Your task to perform on an android device: see creations saved in the google photos Image 0: 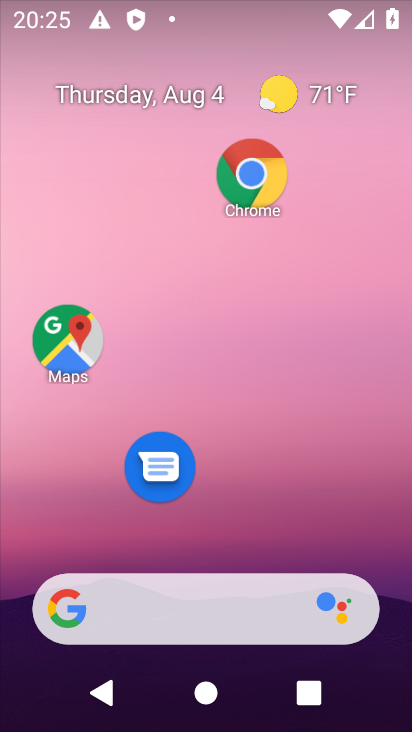
Step 0: press home button
Your task to perform on an android device: see creations saved in the google photos Image 1: 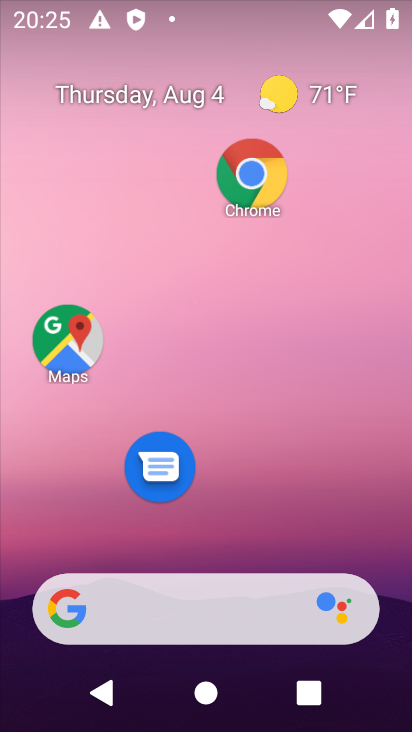
Step 1: drag from (313, 522) to (284, 30)
Your task to perform on an android device: see creations saved in the google photos Image 2: 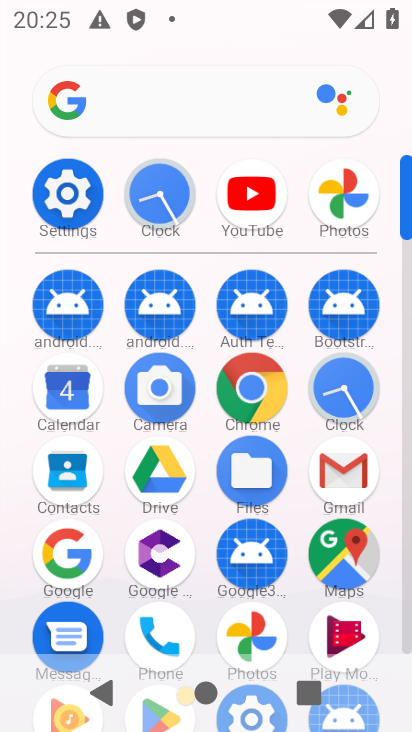
Step 2: click (333, 181)
Your task to perform on an android device: see creations saved in the google photos Image 3: 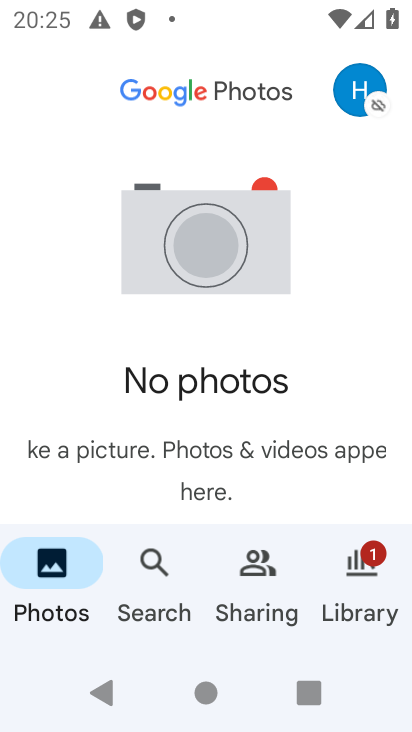
Step 3: click (149, 562)
Your task to perform on an android device: see creations saved in the google photos Image 4: 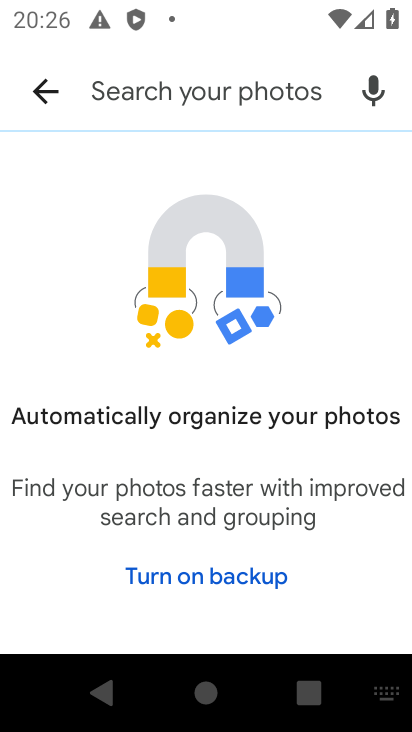
Step 4: click (120, 84)
Your task to perform on an android device: see creations saved in the google photos Image 5: 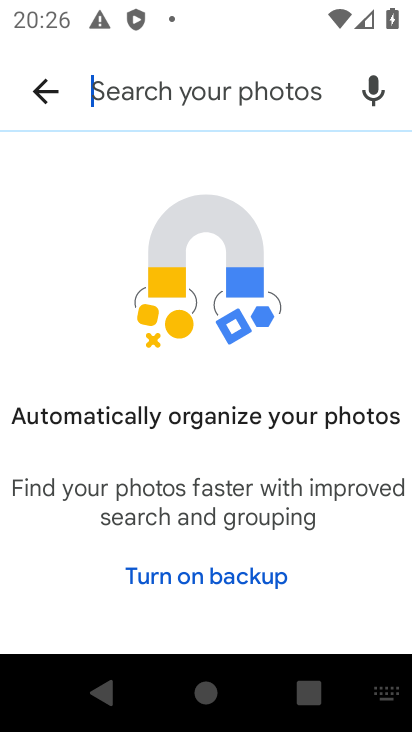
Step 5: click (191, 568)
Your task to perform on an android device: see creations saved in the google photos Image 6: 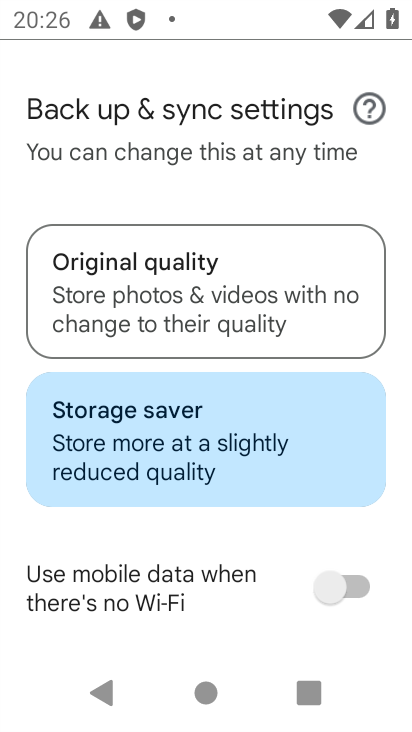
Step 6: drag from (124, 546) to (96, 185)
Your task to perform on an android device: see creations saved in the google photos Image 7: 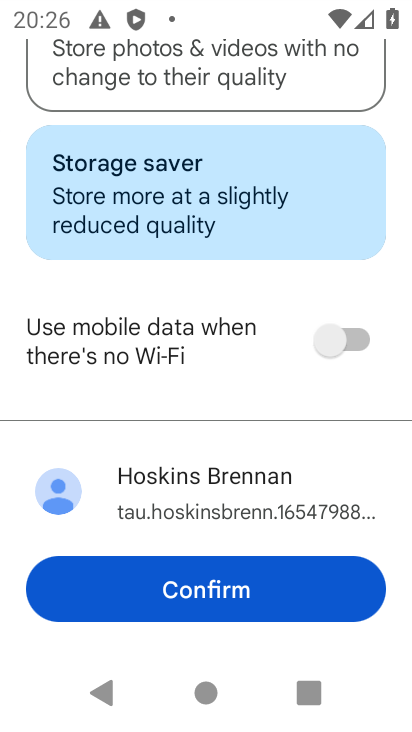
Step 7: drag from (125, 451) to (119, 302)
Your task to perform on an android device: see creations saved in the google photos Image 8: 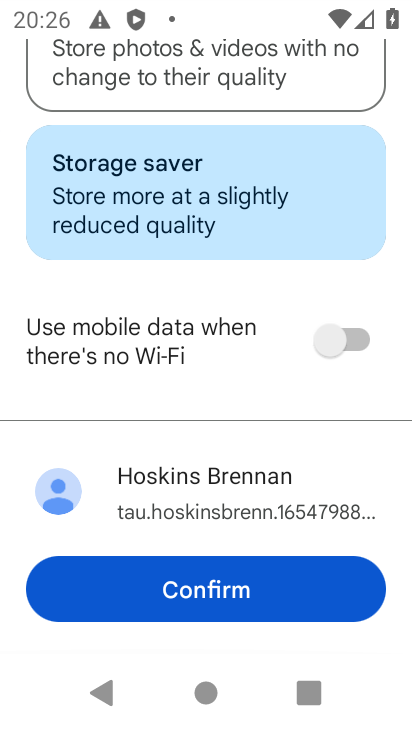
Step 8: click (145, 598)
Your task to perform on an android device: see creations saved in the google photos Image 9: 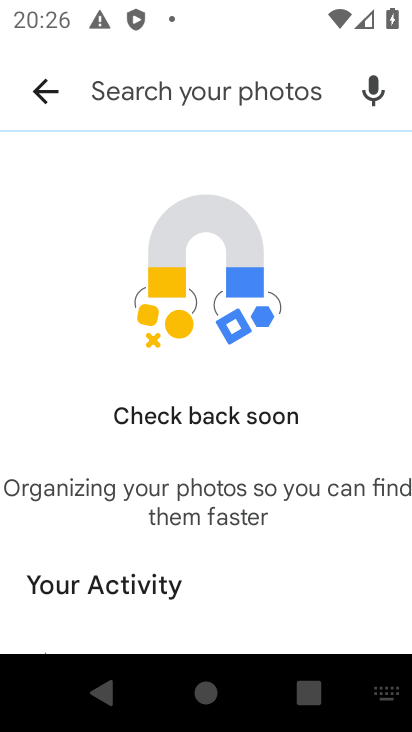
Step 9: click (128, 83)
Your task to perform on an android device: see creations saved in the google photos Image 10: 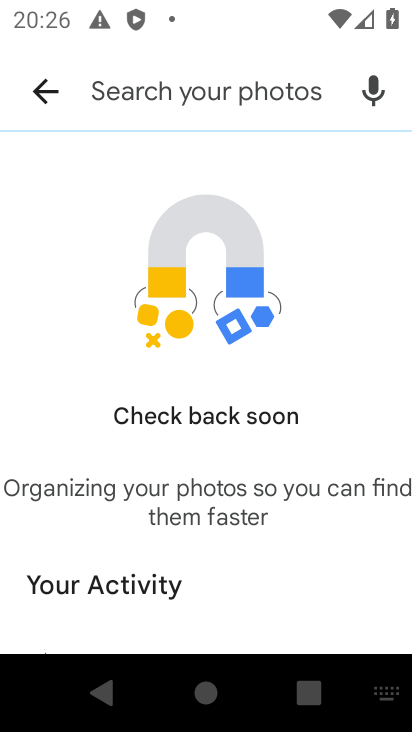
Step 10: drag from (152, 459) to (127, 183)
Your task to perform on an android device: see creations saved in the google photos Image 11: 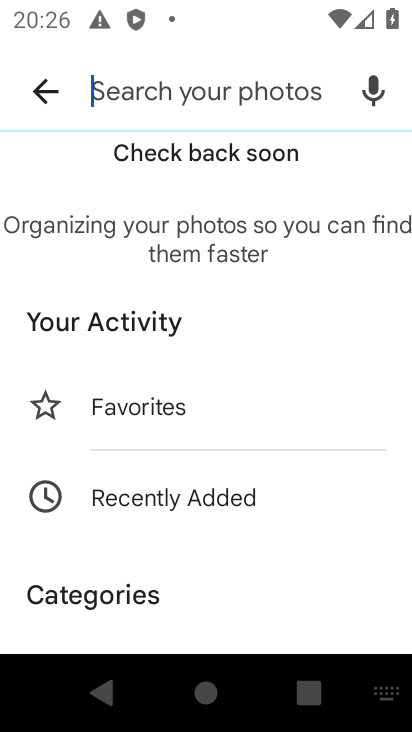
Step 11: drag from (137, 582) to (131, 170)
Your task to perform on an android device: see creations saved in the google photos Image 12: 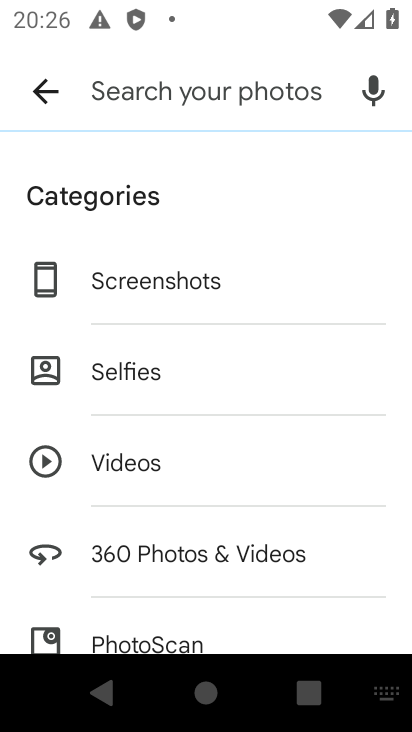
Step 12: drag from (123, 572) to (126, 196)
Your task to perform on an android device: see creations saved in the google photos Image 13: 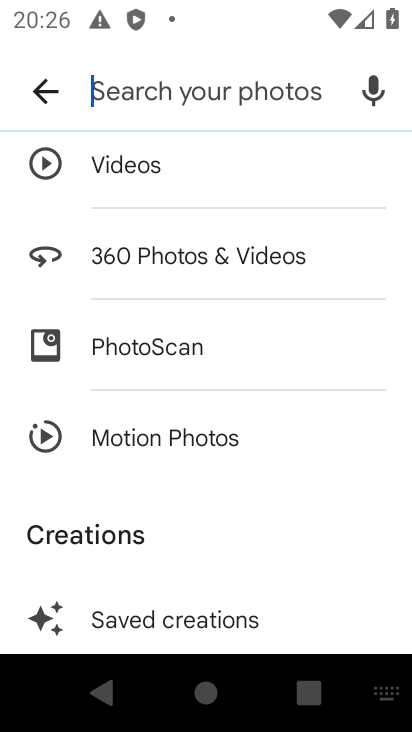
Step 13: click (121, 607)
Your task to perform on an android device: see creations saved in the google photos Image 14: 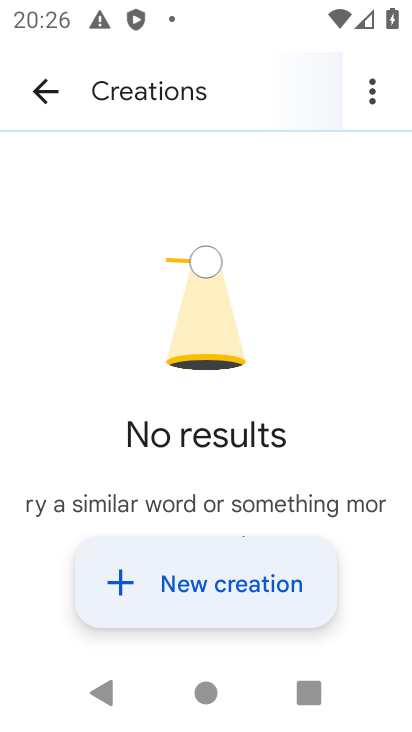
Step 14: task complete